Your task to perform on an android device: Open Google Chrome Image 0: 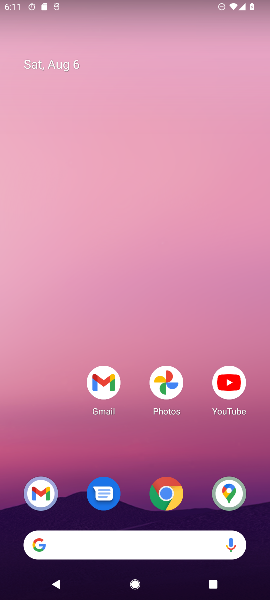
Step 0: drag from (187, 553) to (178, 282)
Your task to perform on an android device: Open Google Chrome Image 1: 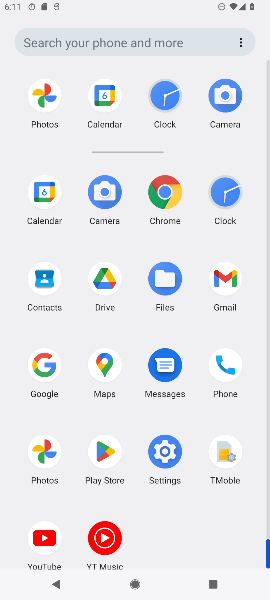
Step 1: click (171, 192)
Your task to perform on an android device: Open Google Chrome Image 2: 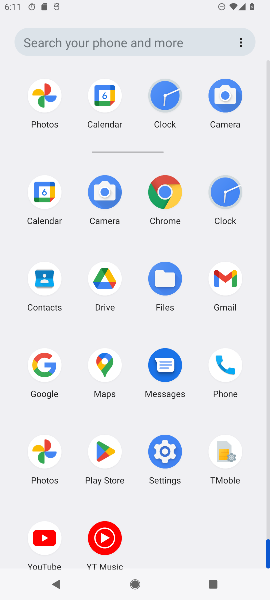
Step 2: click (171, 192)
Your task to perform on an android device: Open Google Chrome Image 3: 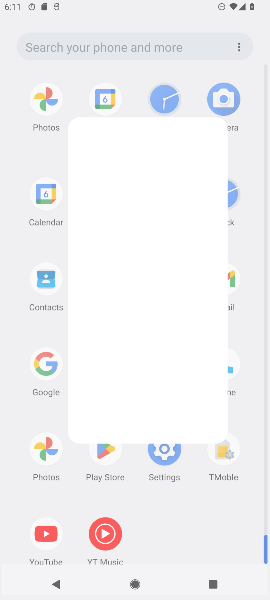
Step 3: click (170, 194)
Your task to perform on an android device: Open Google Chrome Image 4: 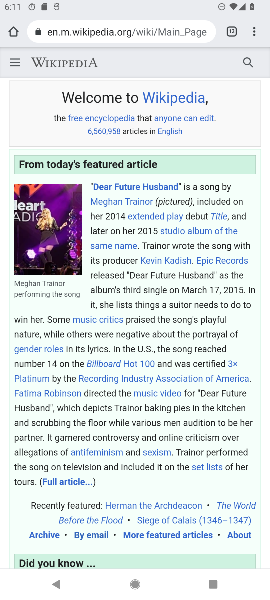
Step 4: click (249, 29)
Your task to perform on an android device: Open Google Chrome Image 5: 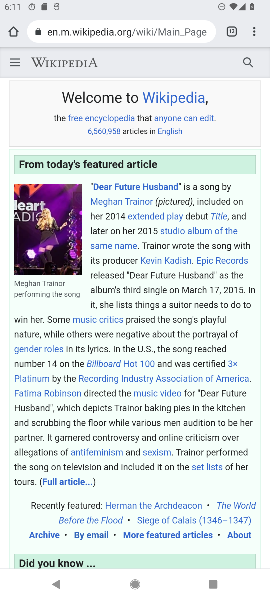
Step 5: task complete